Your task to perform on an android device: find photos in the google photos app Image 0: 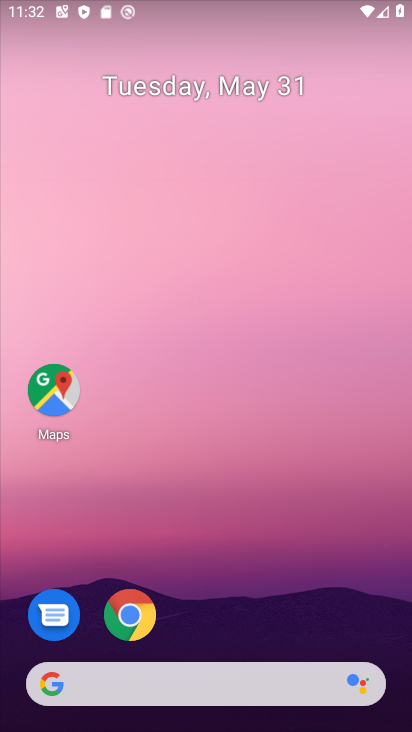
Step 0: task complete